Your task to perform on an android device: turn off javascript in the chrome app Image 0: 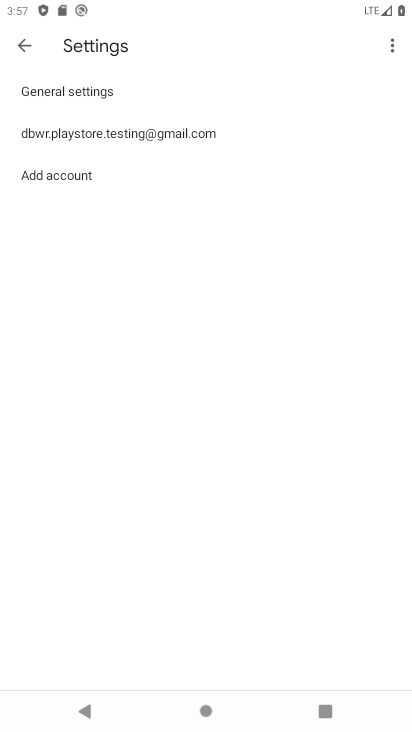
Step 0: click (11, 46)
Your task to perform on an android device: turn off javascript in the chrome app Image 1: 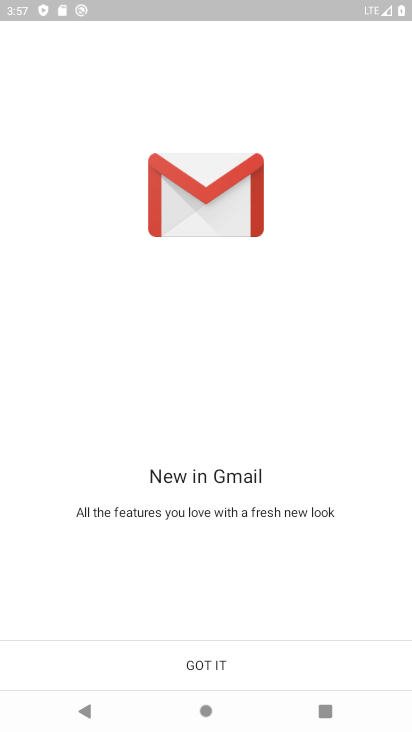
Step 1: click (233, 646)
Your task to perform on an android device: turn off javascript in the chrome app Image 2: 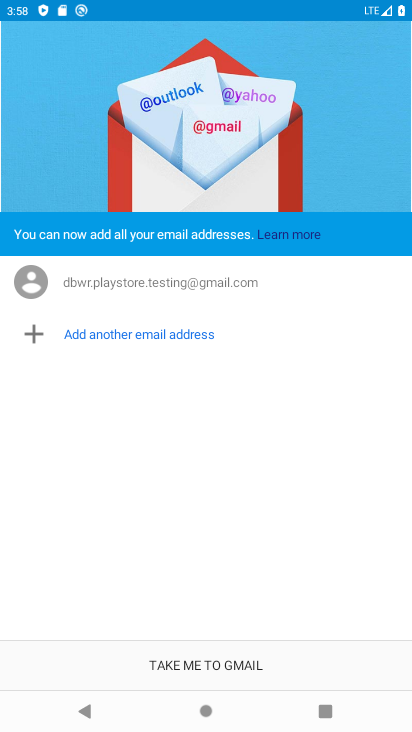
Step 2: press back button
Your task to perform on an android device: turn off javascript in the chrome app Image 3: 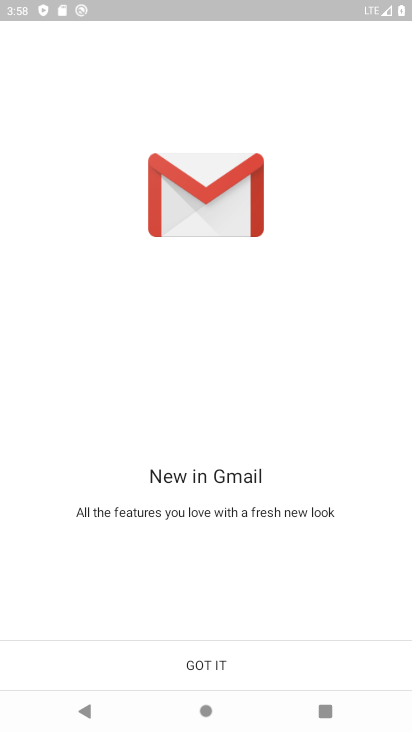
Step 3: press back button
Your task to perform on an android device: turn off javascript in the chrome app Image 4: 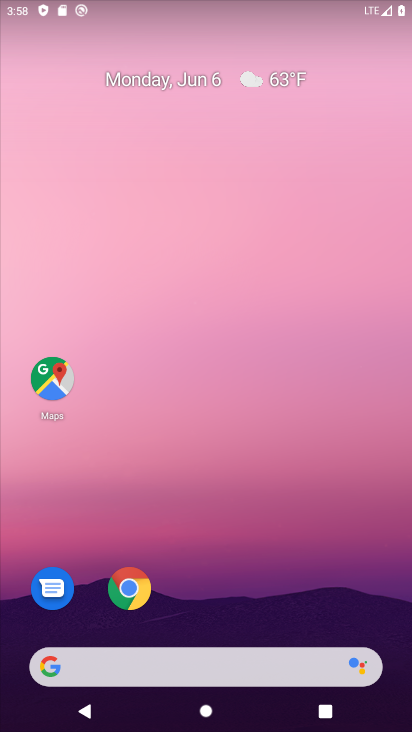
Step 4: drag from (243, 698) to (169, 7)
Your task to perform on an android device: turn off javascript in the chrome app Image 5: 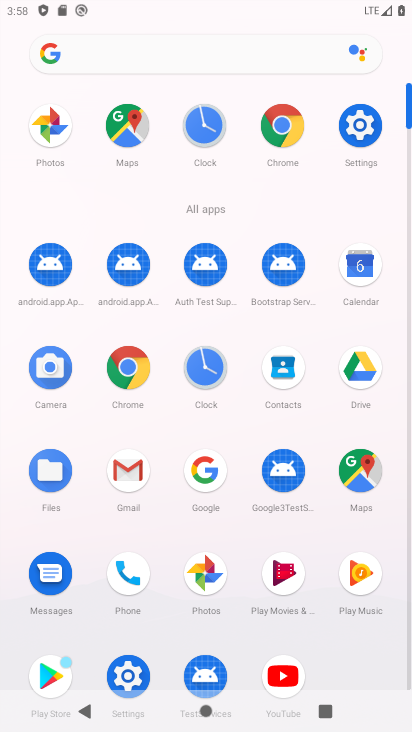
Step 5: click (280, 122)
Your task to perform on an android device: turn off javascript in the chrome app Image 6: 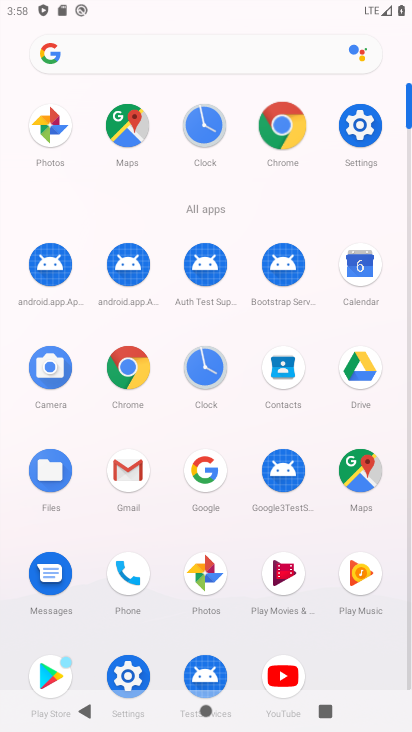
Step 6: click (280, 122)
Your task to perform on an android device: turn off javascript in the chrome app Image 7: 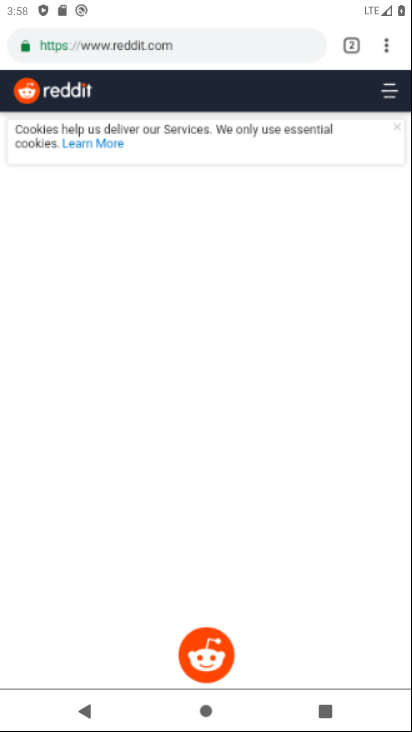
Step 7: click (280, 123)
Your task to perform on an android device: turn off javascript in the chrome app Image 8: 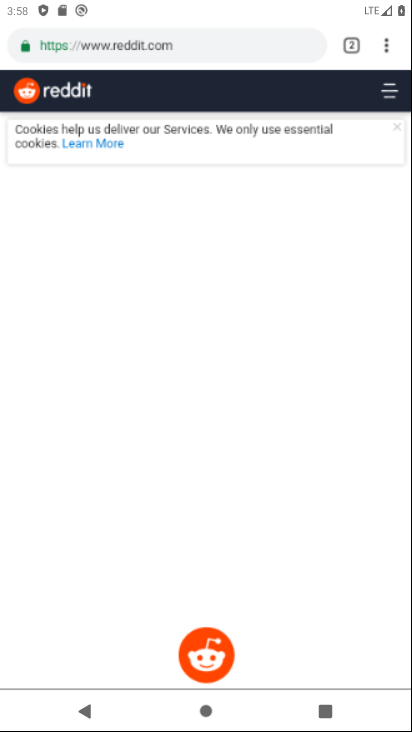
Step 8: click (281, 124)
Your task to perform on an android device: turn off javascript in the chrome app Image 9: 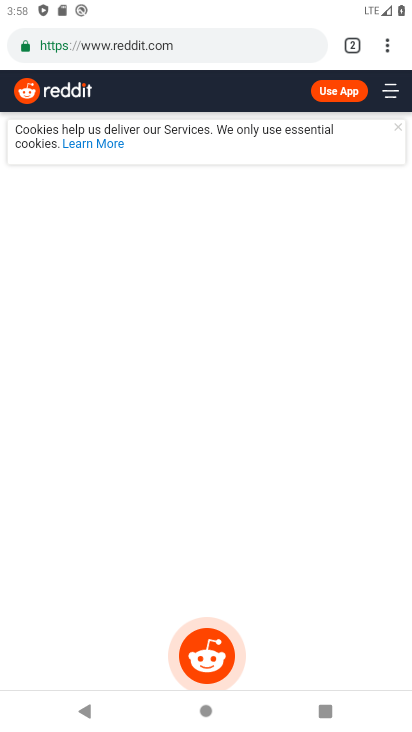
Step 9: drag from (385, 45) to (214, 606)
Your task to perform on an android device: turn off javascript in the chrome app Image 10: 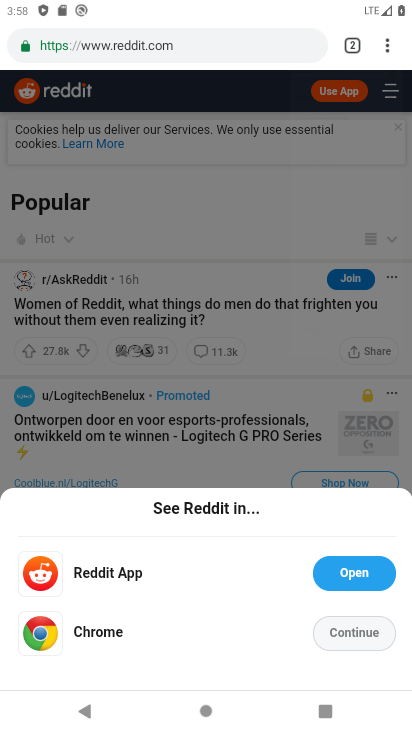
Step 10: drag from (385, 53) to (214, 606)
Your task to perform on an android device: turn off javascript in the chrome app Image 11: 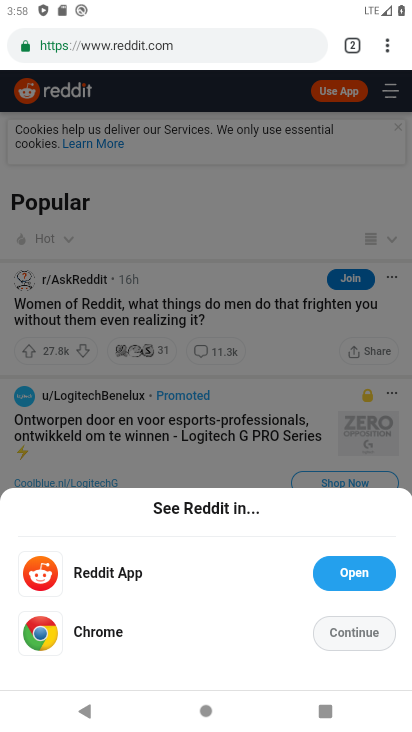
Step 11: drag from (385, 53) to (220, 601)
Your task to perform on an android device: turn off javascript in the chrome app Image 12: 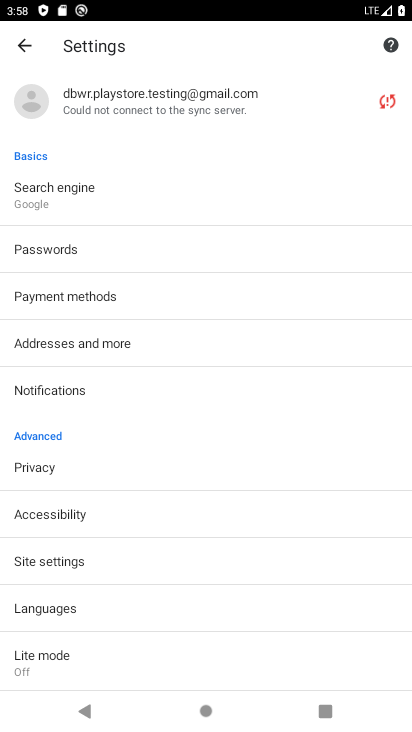
Step 12: click (41, 562)
Your task to perform on an android device: turn off javascript in the chrome app Image 13: 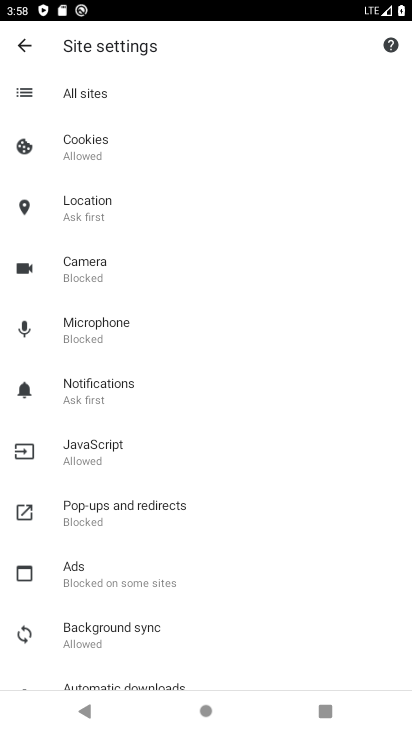
Step 13: click (90, 444)
Your task to perform on an android device: turn off javascript in the chrome app Image 14: 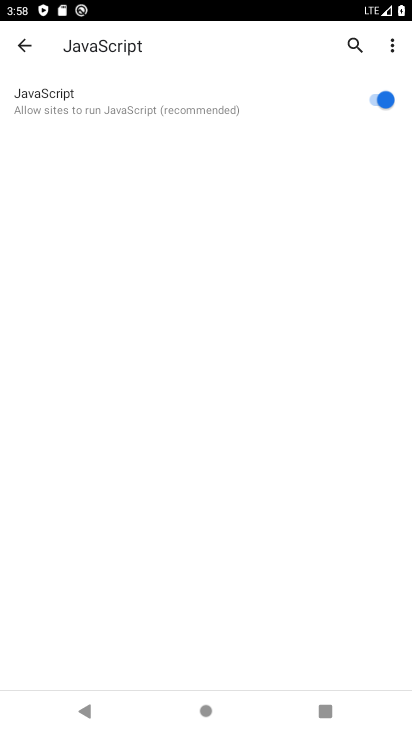
Step 14: click (381, 98)
Your task to perform on an android device: turn off javascript in the chrome app Image 15: 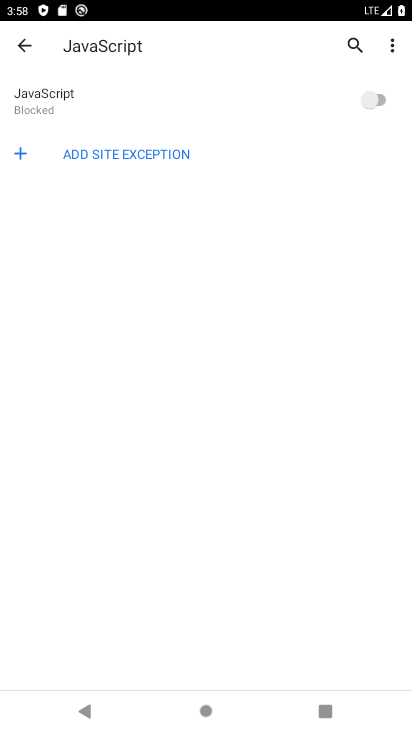
Step 15: task complete